Your task to perform on an android device: uninstall "Facebook Lite" Image 0: 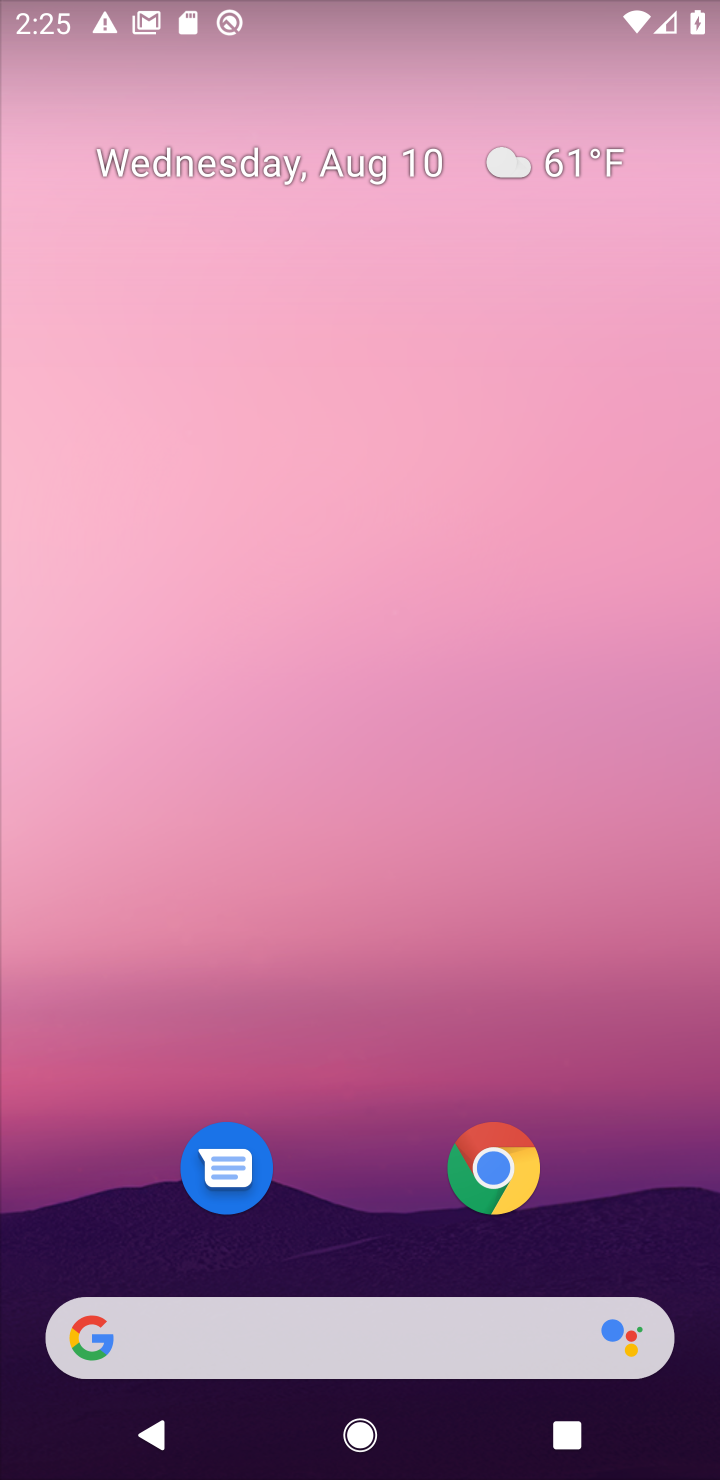
Step 0: drag from (310, 1264) to (416, 248)
Your task to perform on an android device: uninstall "Facebook Lite" Image 1: 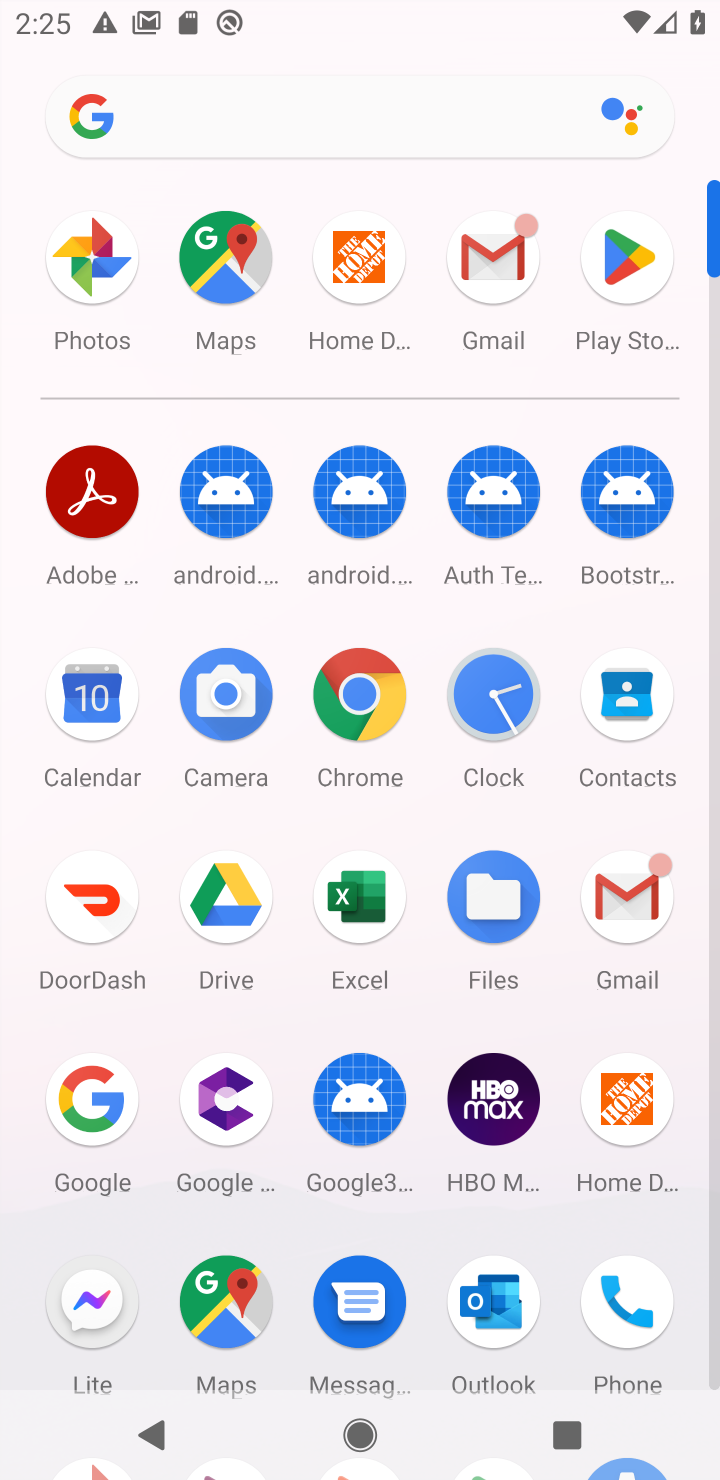
Step 1: click (630, 266)
Your task to perform on an android device: uninstall "Facebook Lite" Image 2: 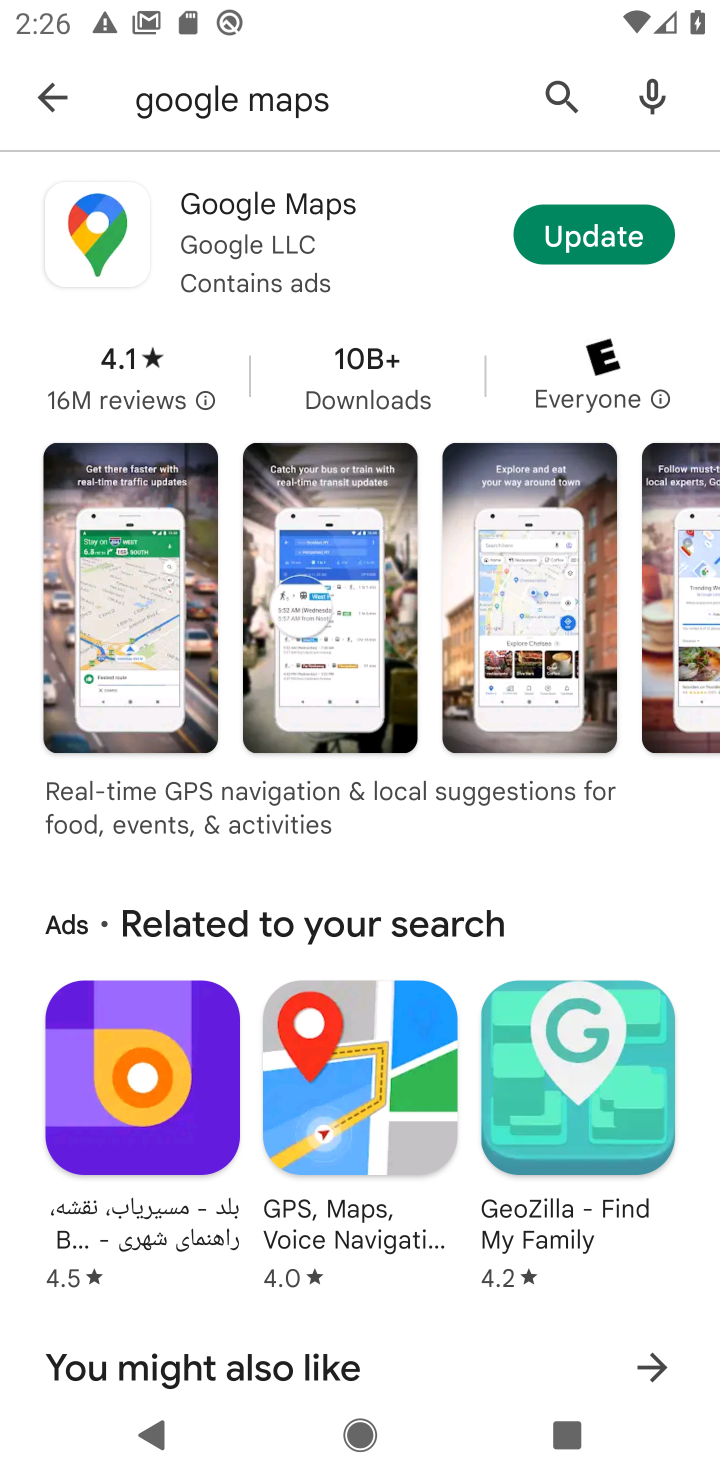
Step 2: click (556, 83)
Your task to perform on an android device: uninstall "Facebook Lite" Image 3: 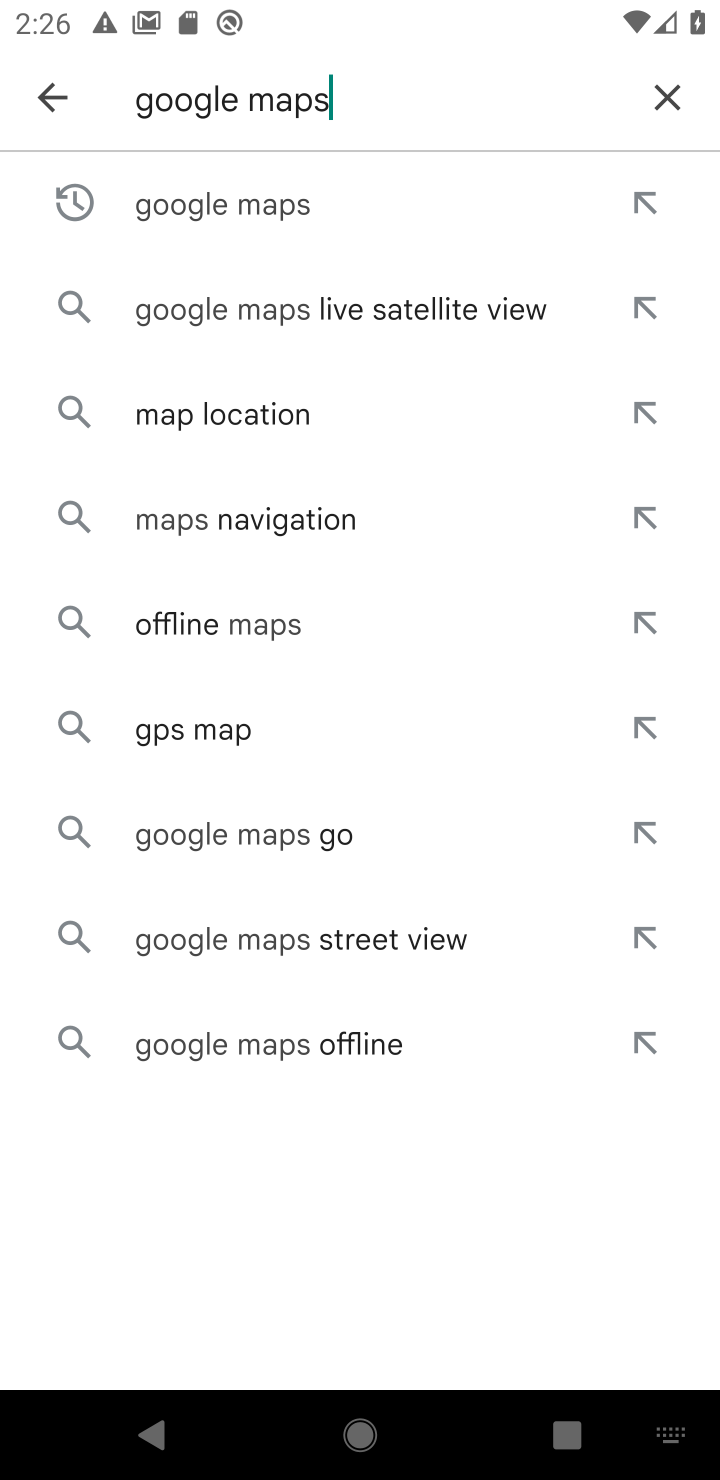
Step 3: click (673, 108)
Your task to perform on an android device: uninstall "Facebook Lite" Image 4: 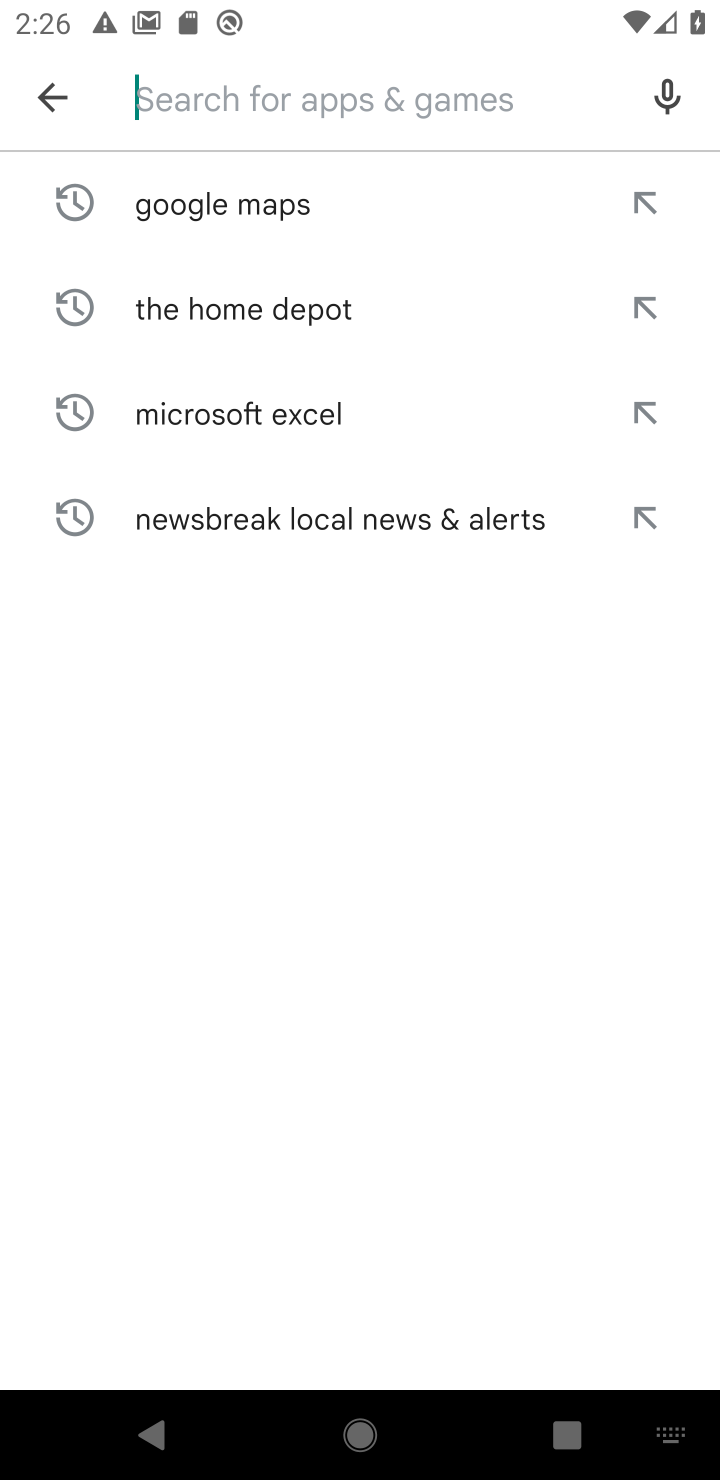
Step 4: type "Facebook Lite"
Your task to perform on an android device: uninstall "Facebook Lite" Image 5: 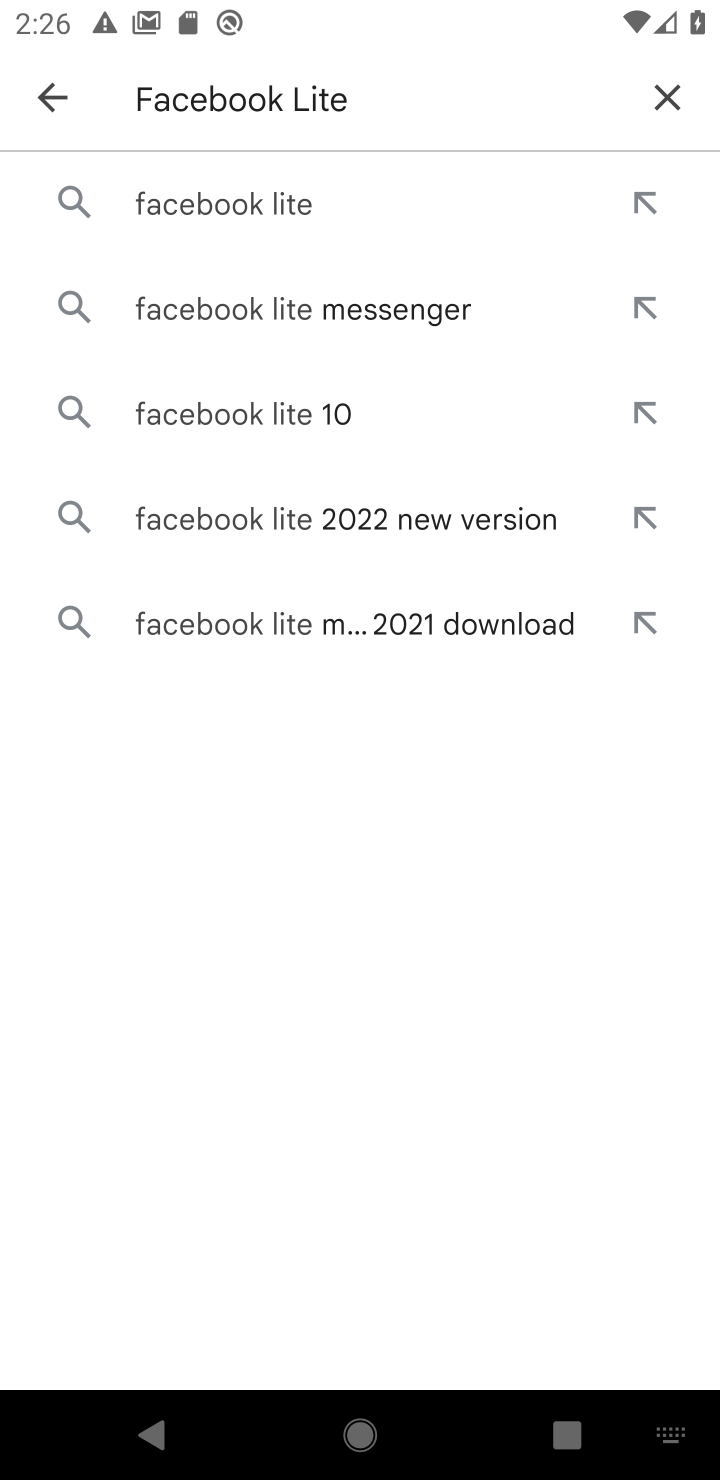
Step 5: click (297, 210)
Your task to perform on an android device: uninstall "Facebook Lite" Image 6: 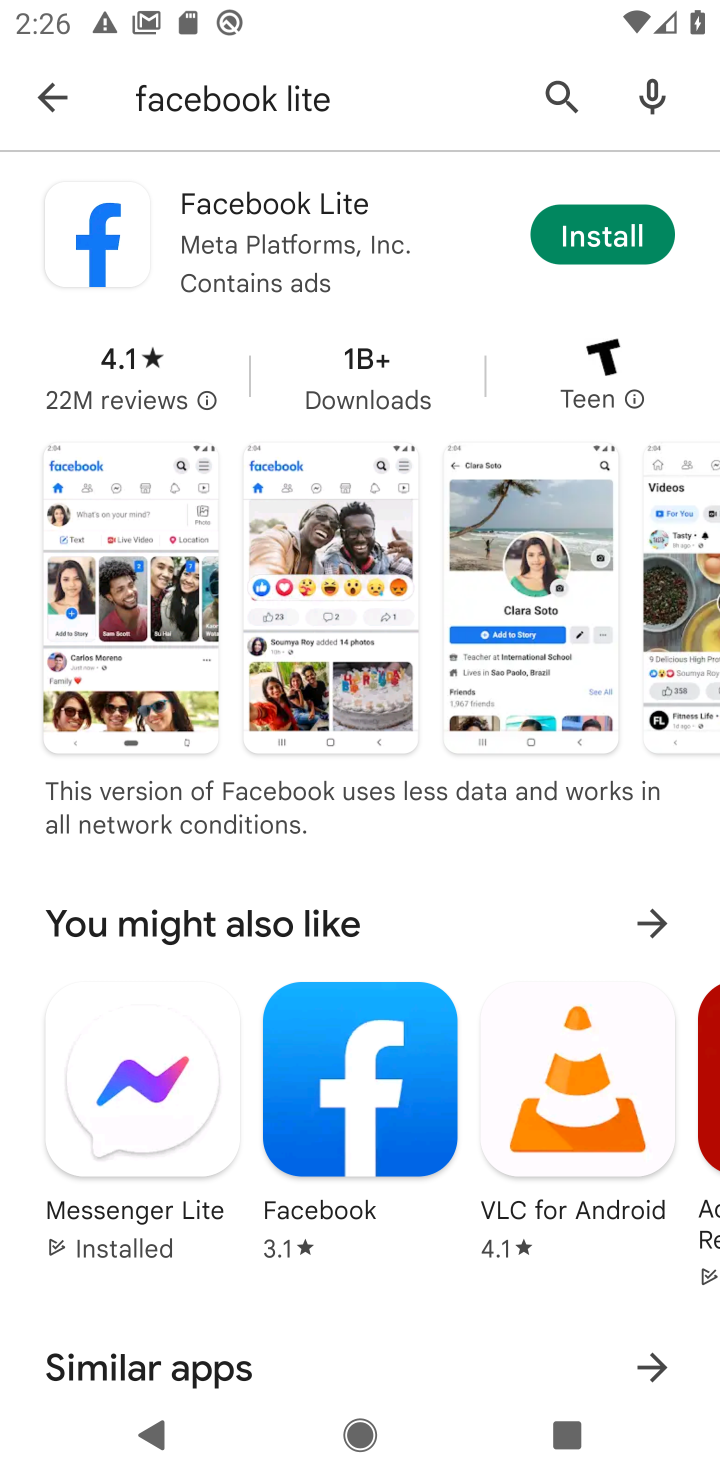
Step 6: task complete